Your task to perform on an android device: Clear the shopping cart on ebay. Search for apple airpods on ebay, select the first entry, and add it to the cart. Image 0: 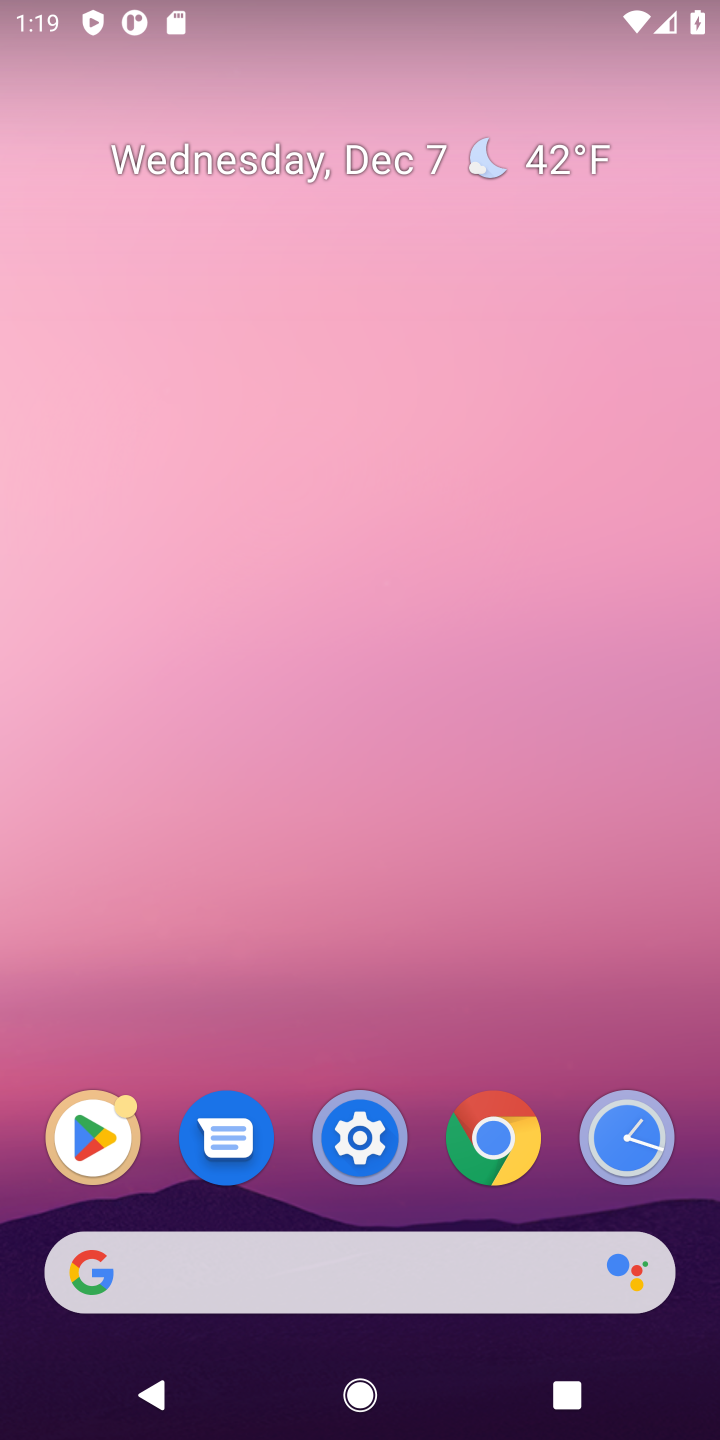
Step 0: click (276, 1262)
Your task to perform on an android device: Clear the shopping cart on ebay. Search for apple airpods on ebay, select the first entry, and add it to the cart. Image 1: 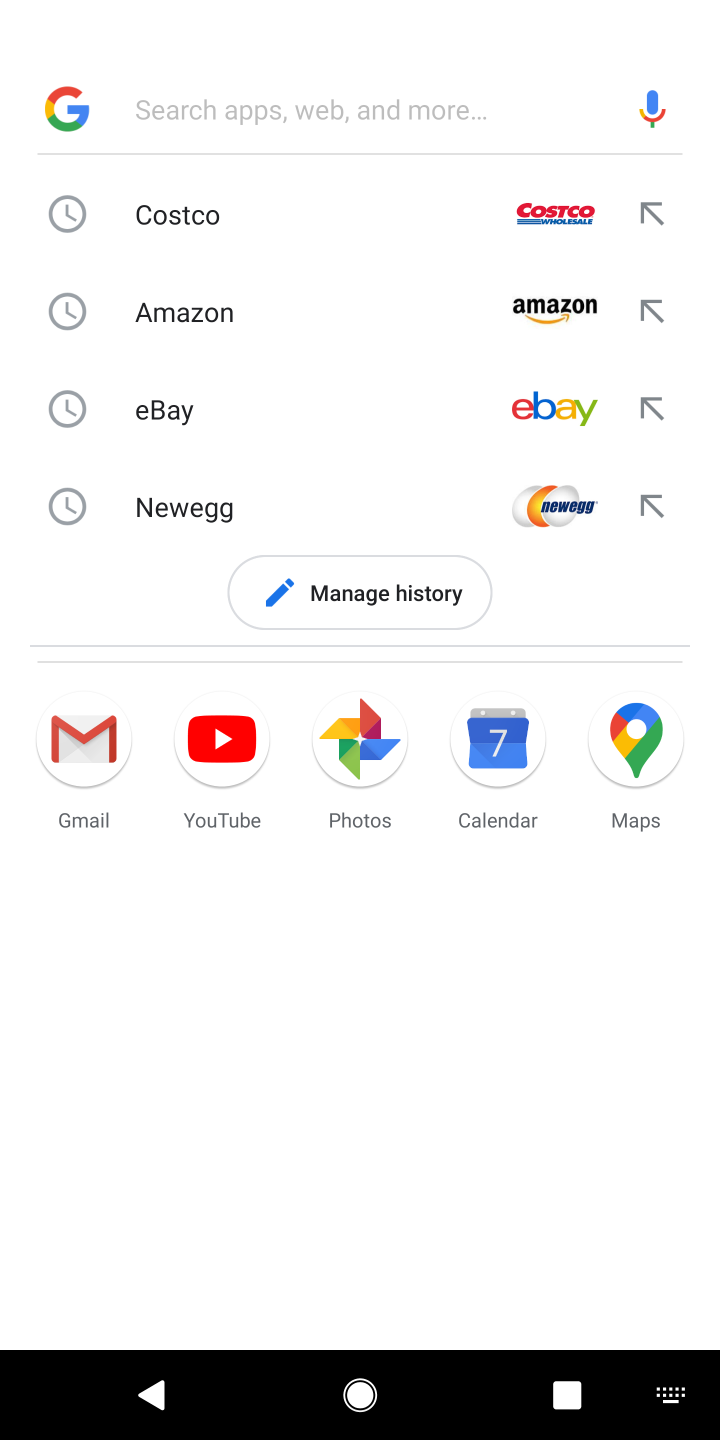
Step 1: type "ebay.com"
Your task to perform on an android device: Clear the shopping cart on ebay. Search for apple airpods on ebay, select the first entry, and add it to the cart. Image 2: 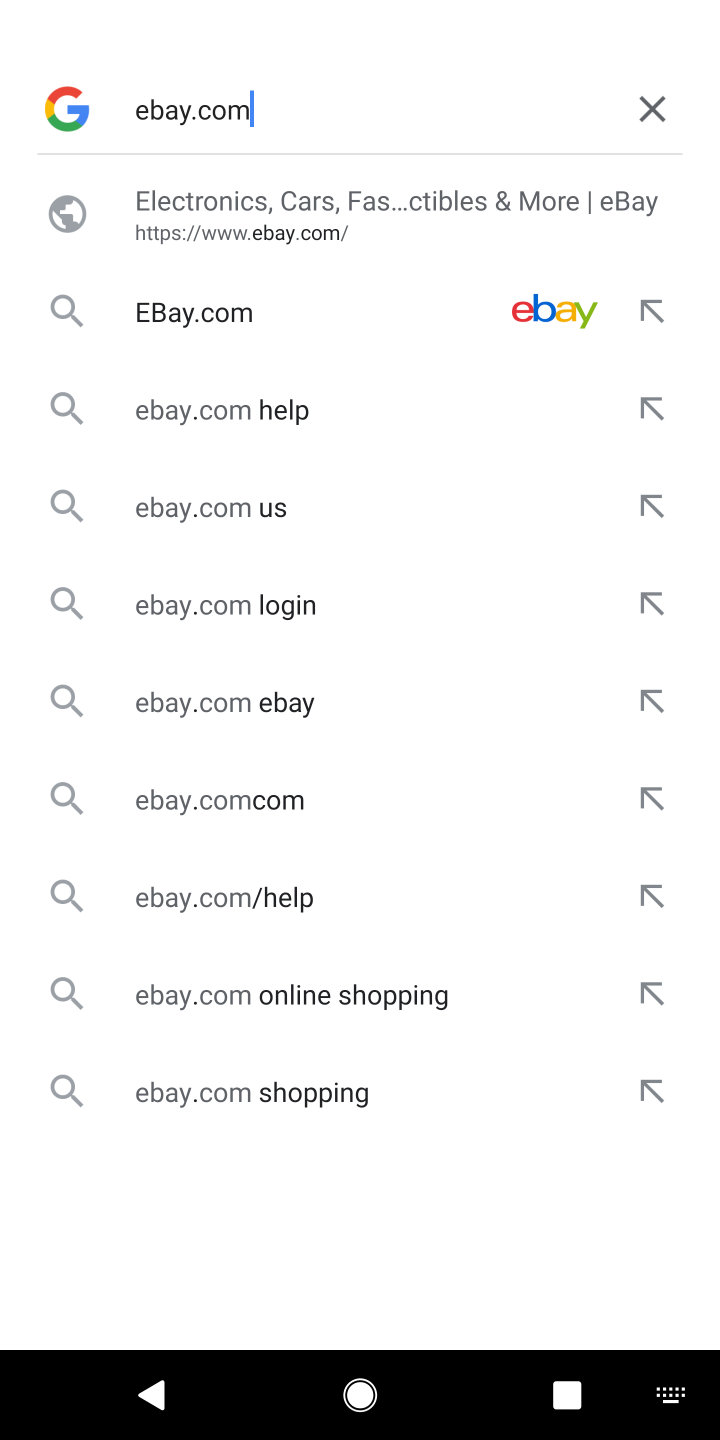
Step 2: click (355, 261)
Your task to perform on an android device: Clear the shopping cart on ebay. Search for apple airpods on ebay, select the first entry, and add it to the cart. Image 3: 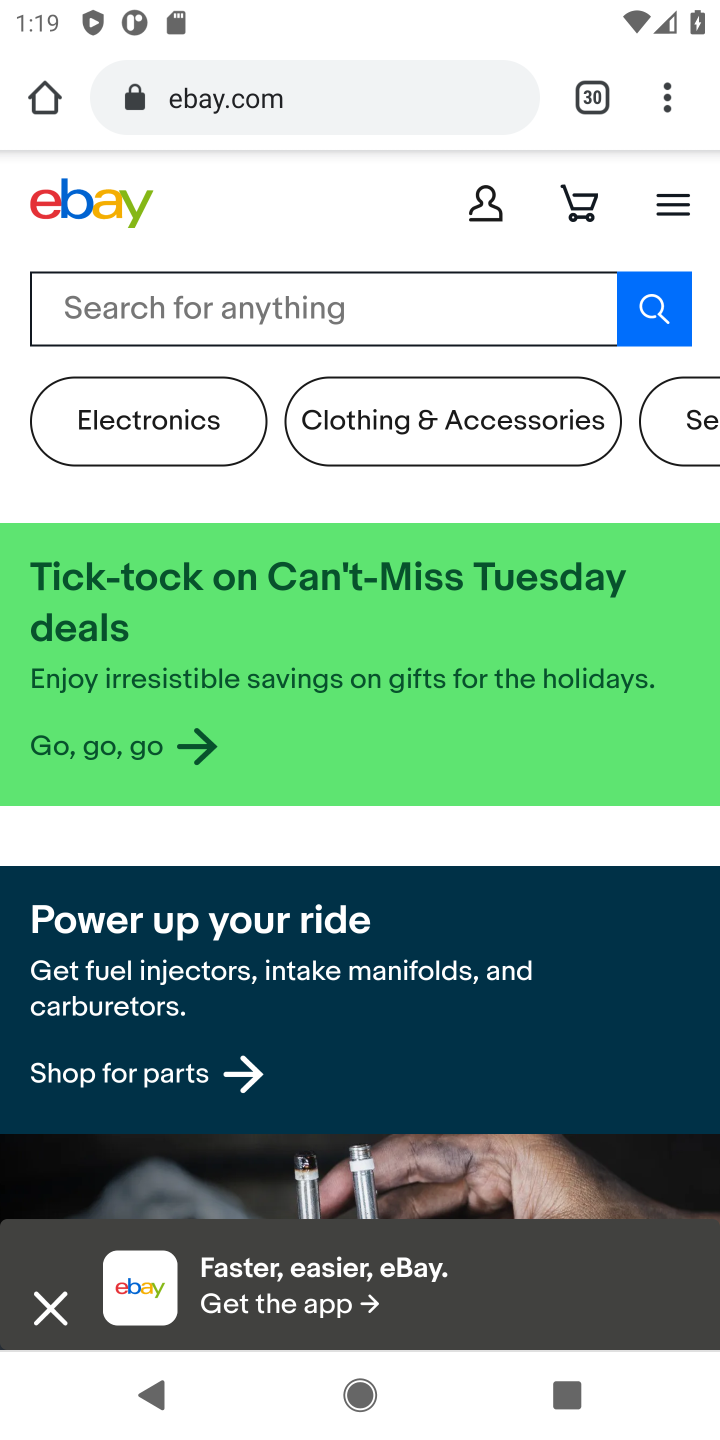
Step 3: click (381, 317)
Your task to perform on an android device: Clear the shopping cart on ebay. Search for apple airpods on ebay, select the first entry, and add it to the cart. Image 4: 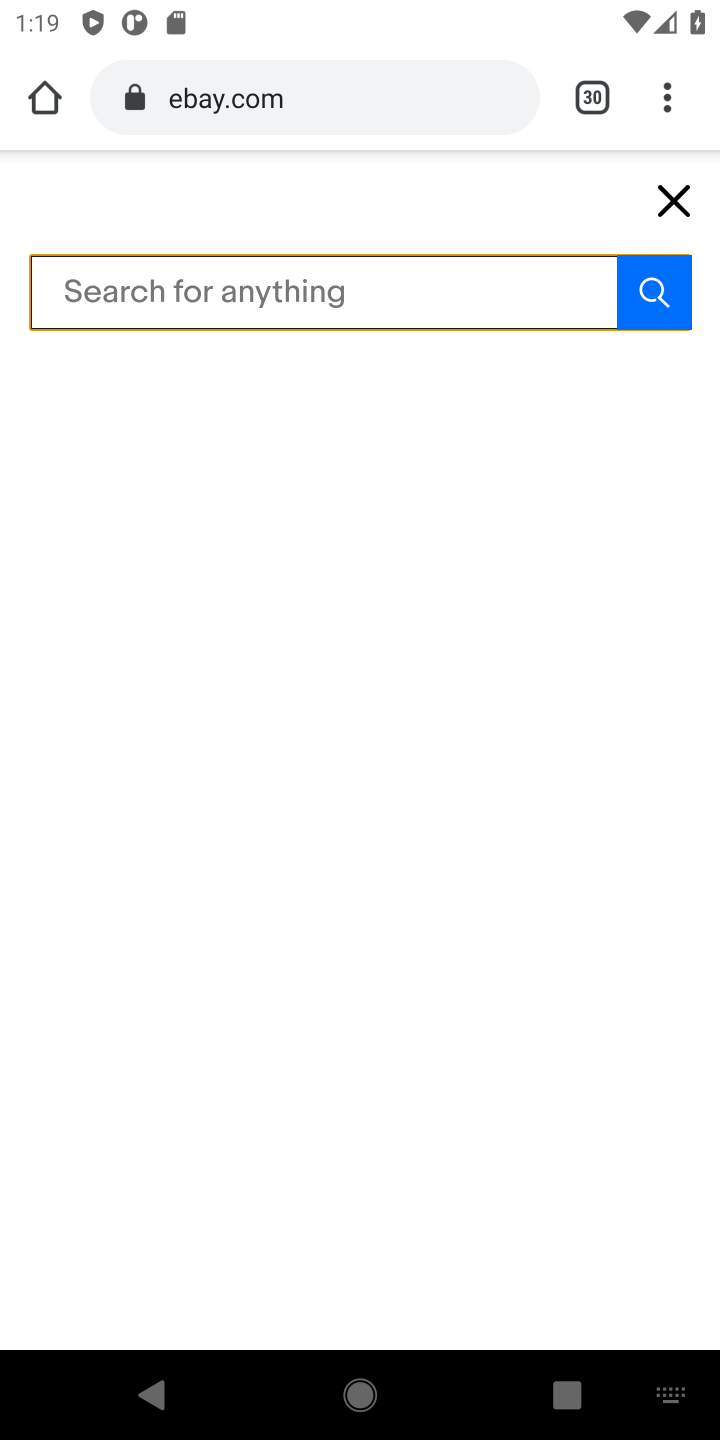
Step 4: task complete